Your task to perform on an android device: What's the weather going to be this weekend? Image 0: 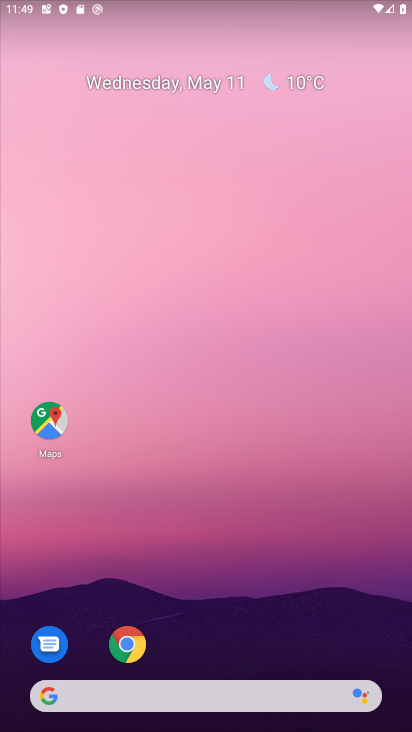
Step 0: drag from (19, 583) to (409, 691)
Your task to perform on an android device: What's the weather going to be this weekend? Image 1: 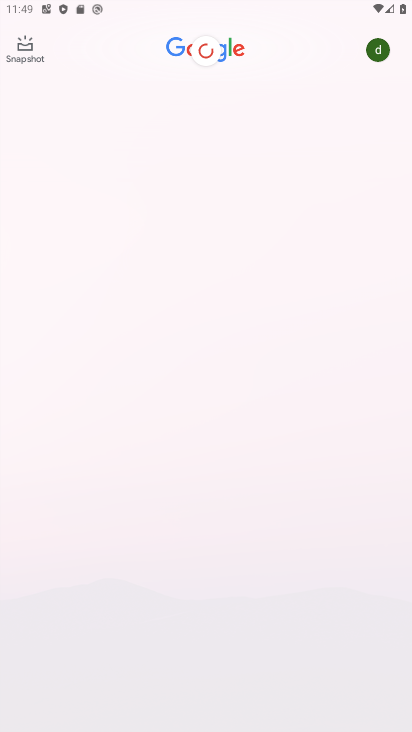
Step 1: press home button
Your task to perform on an android device: What's the weather going to be this weekend? Image 2: 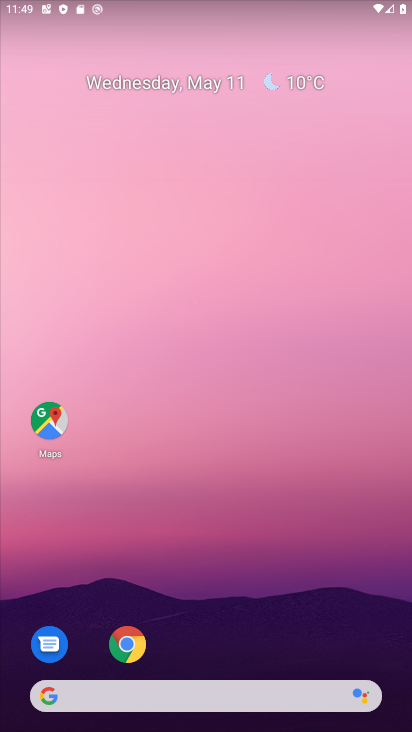
Step 2: click (65, 423)
Your task to perform on an android device: What's the weather going to be this weekend? Image 3: 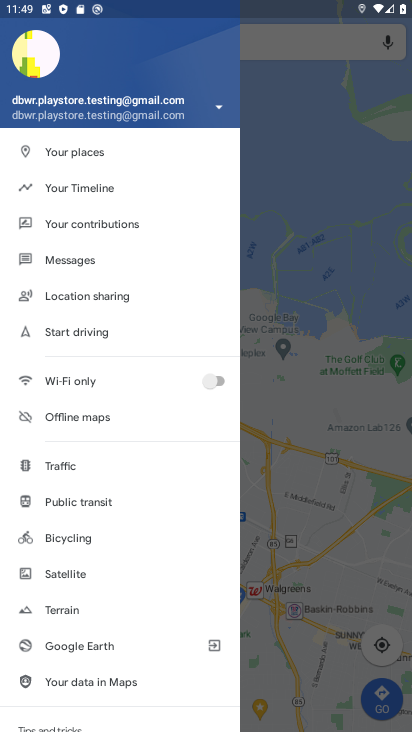
Step 3: press home button
Your task to perform on an android device: What's the weather going to be this weekend? Image 4: 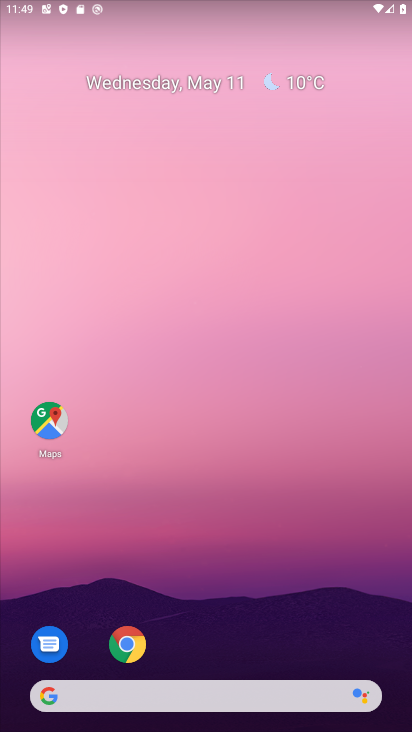
Step 4: click (134, 645)
Your task to perform on an android device: What's the weather going to be this weekend? Image 5: 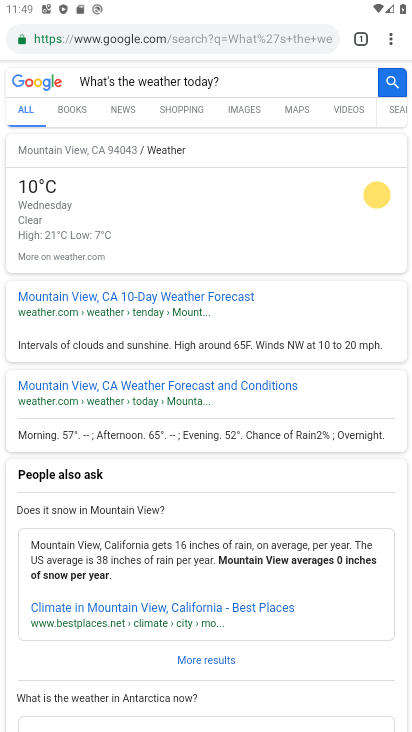
Step 5: click (224, 45)
Your task to perform on an android device: What's the weather going to be this weekend? Image 6: 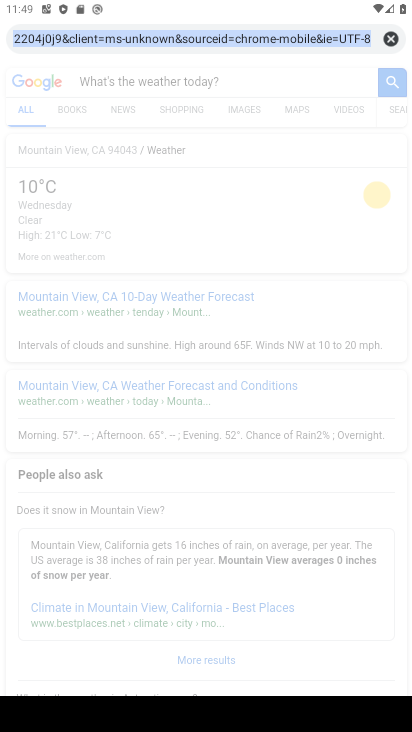
Step 6: click (387, 34)
Your task to perform on an android device: What's the weather going to be this weekend? Image 7: 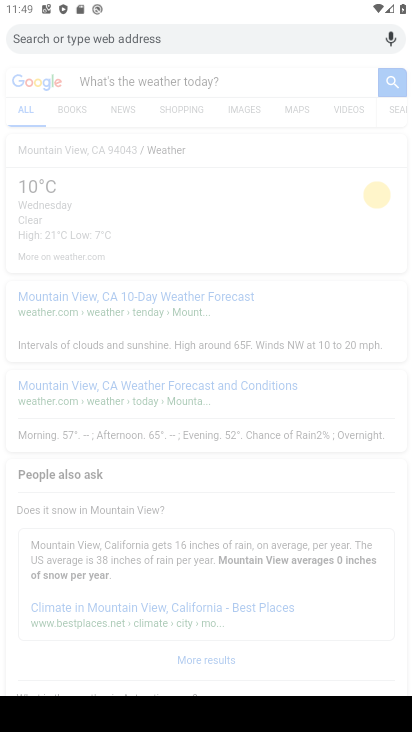
Step 7: type "What's the weather going to be this weekend?"
Your task to perform on an android device: What's the weather going to be this weekend? Image 8: 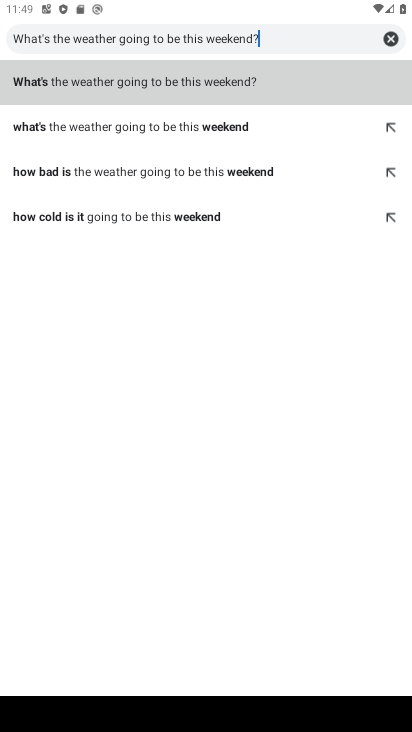
Step 8: click (56, 84)
Your task to perform on an android device: What's the weather going to be this weekend? Image 9: 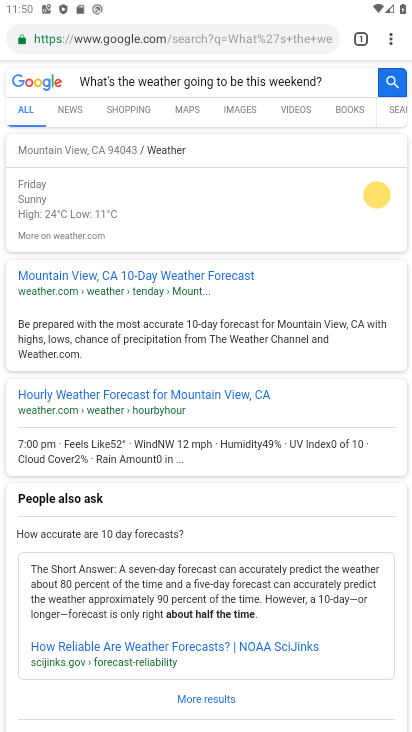
Step 9: task complete